Your task to perform on an android device: check google app version Image 0: 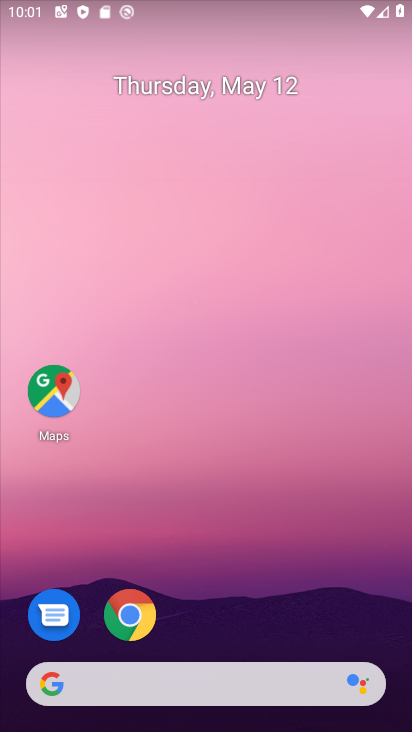
Step 0: drag from (207, 723) to (207, 111)
Your task to perform on an android device: check google app version Image 1: 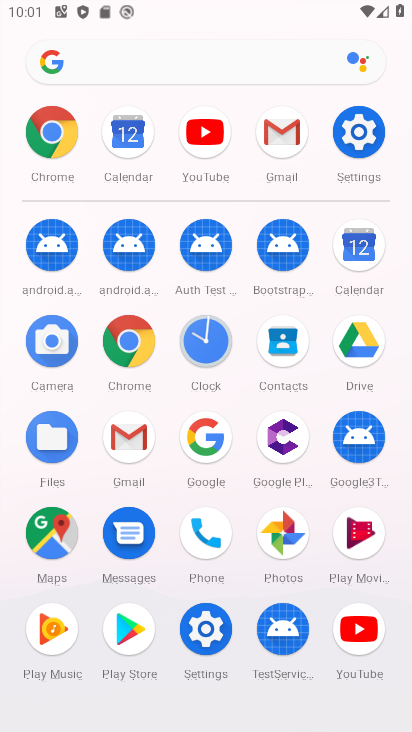
Step 1: click (209, 438)
Your task to perform on an android device: check google app version Image 2: 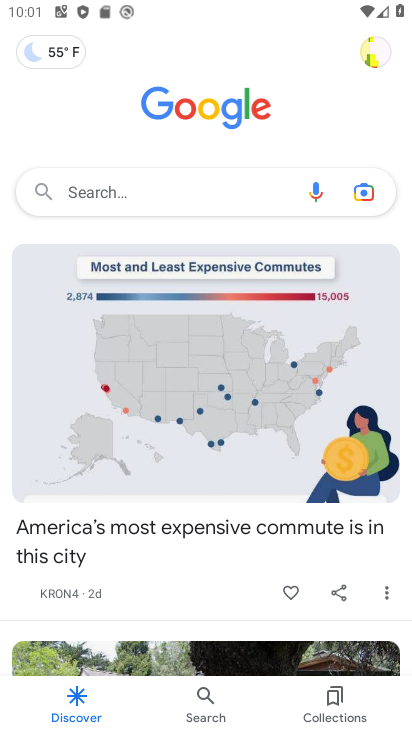
Step 2: click (373, 50)
Your task to perform on an android device: check google app version Image 3: 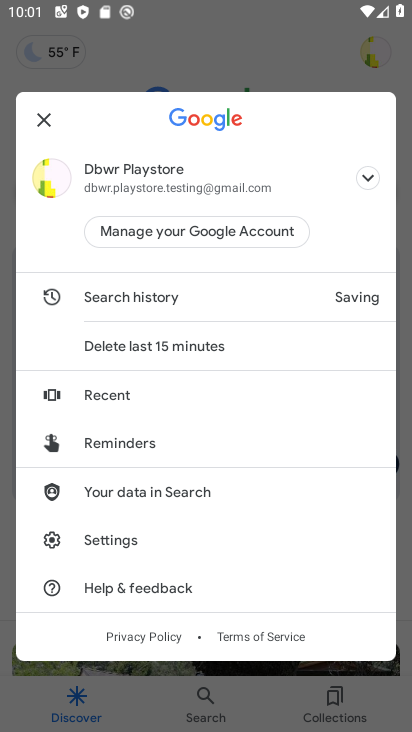
Step 3: click (107, 534)
Your task to perform on an android device: check google app version Image 4: 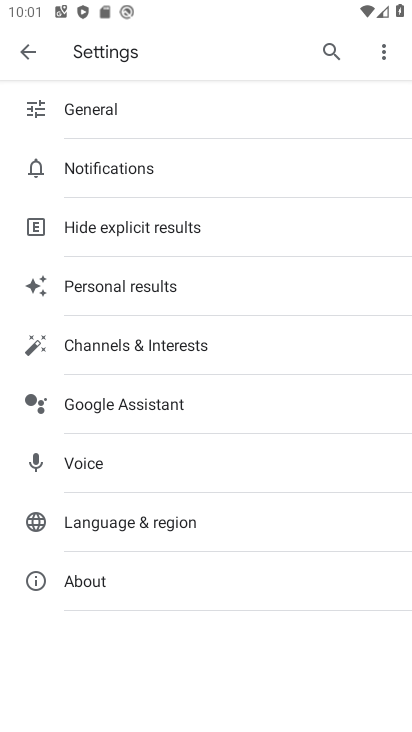
Step 4: click (83, 579)
Your task to perform on an android device: check google app version Image 5: 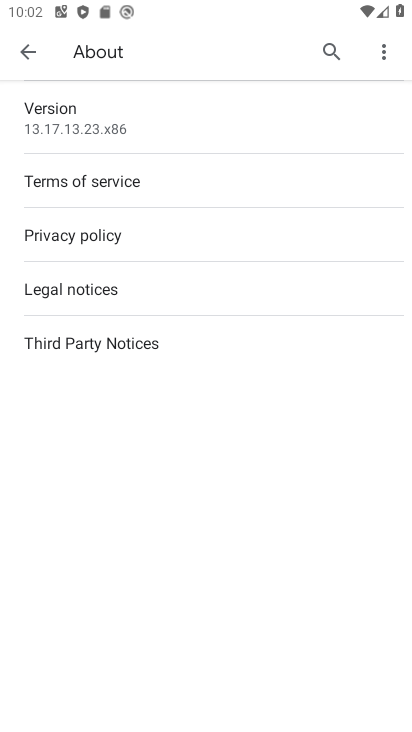
Step 5: task complete